Your task to perform on an android device: open a new tab in the chrome app Image 0: 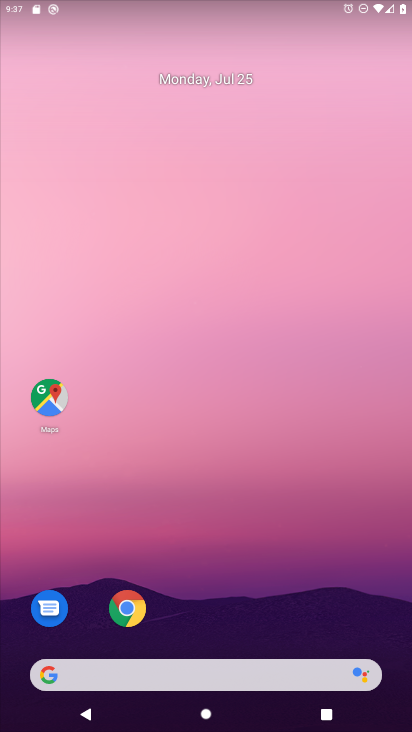
Step 0: click (134, 613)
Your task to perform on an android device: open a new tab in the chrome app Image 1: 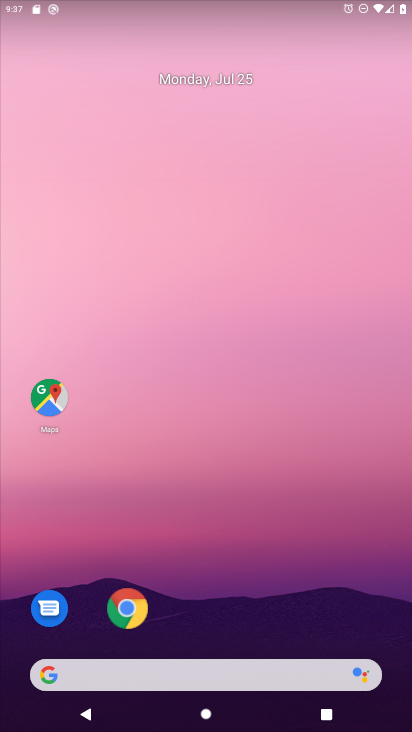
Step 1: click (134, 613)
Your task to perform on an android device: open a new tab in the chrome app Image 2: 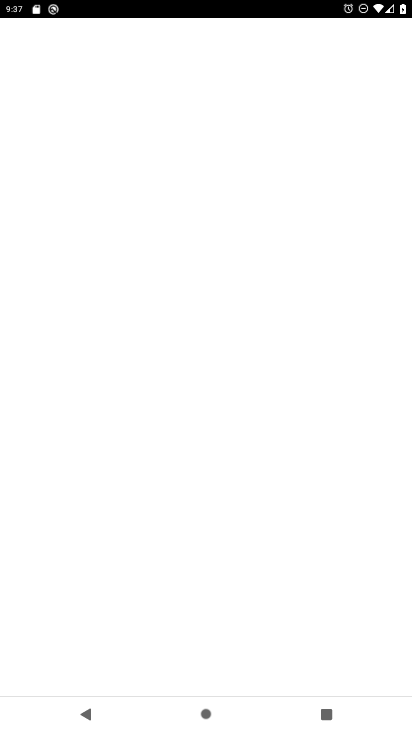
Step 2: click (135, 602)
Your task to perform on an android device: open a new tab in the chrome app Image 3: 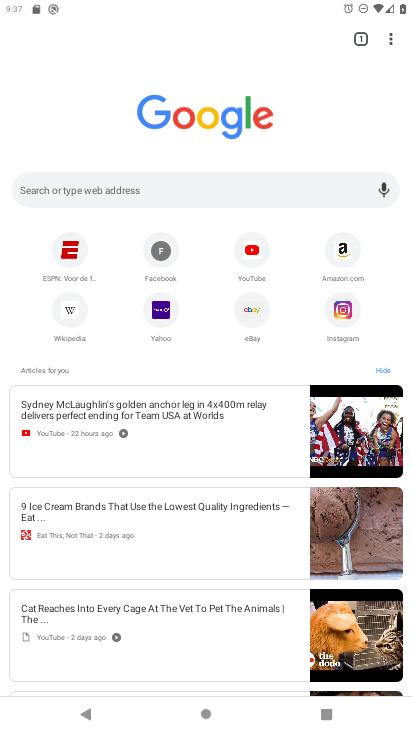
Step 3: click (394, 36)
Your task to perform on an android device: open a new tab in the chrome app Image 4: 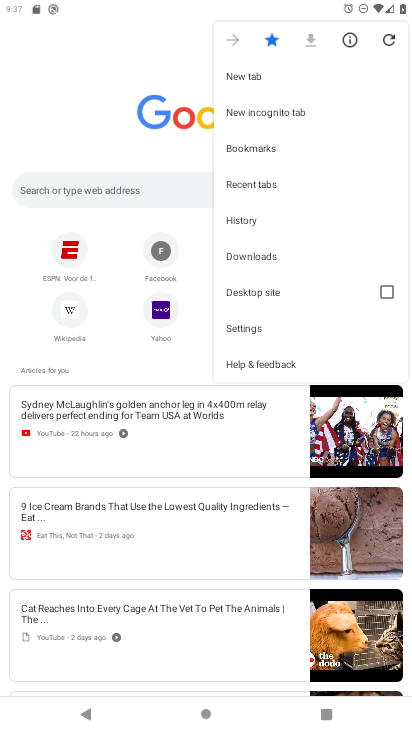
Step 4: click (314, 83)
Your task to perform on an android device: open a new tab in the chrome app Image 5: 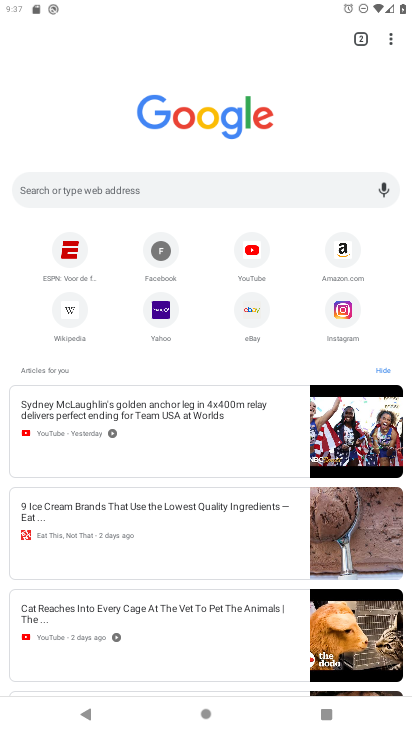
Step 5: task complete